Your task to perform on an android device: turn notification dots on Image 0: 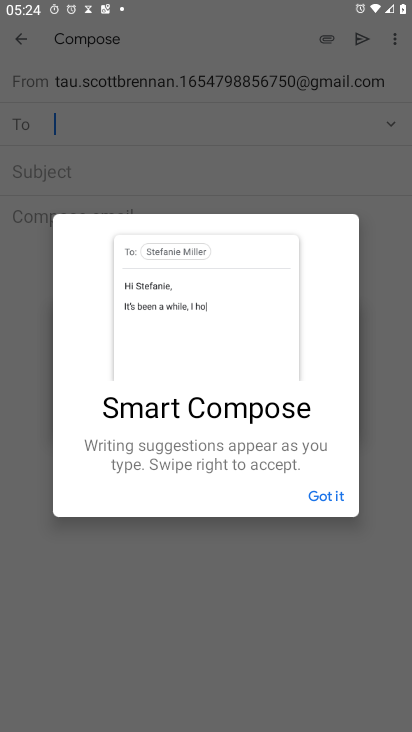
Step 0: press home button
Your task to perform on an android device: turn notification dots on Image 1: 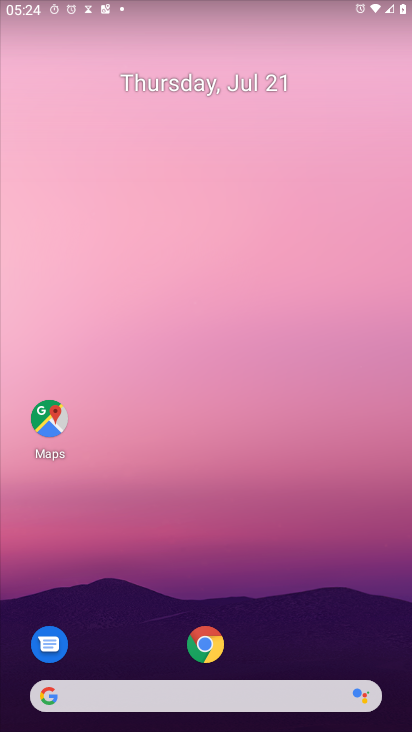
Step 1: drag from (251, 557) to (154, 22)
Your task to perform on an android device: turn notification dots on Image 2: 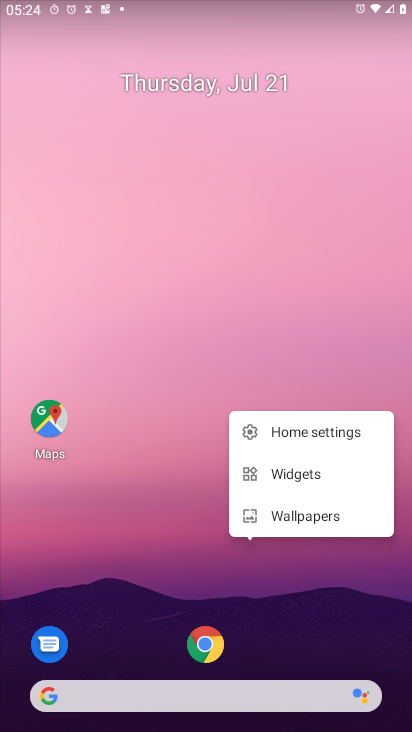
Step 2: drag from (142, 528) to (404, 318)
Your task to perform on an android device: turn notification dots on Image 3: 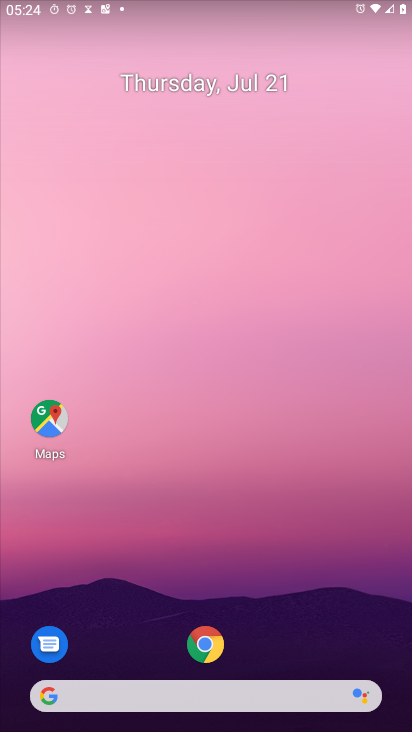
Step 3: drag from (248, 594) to (142, 39)
Your task to perform on an android device: turn notification dots on Image 4: 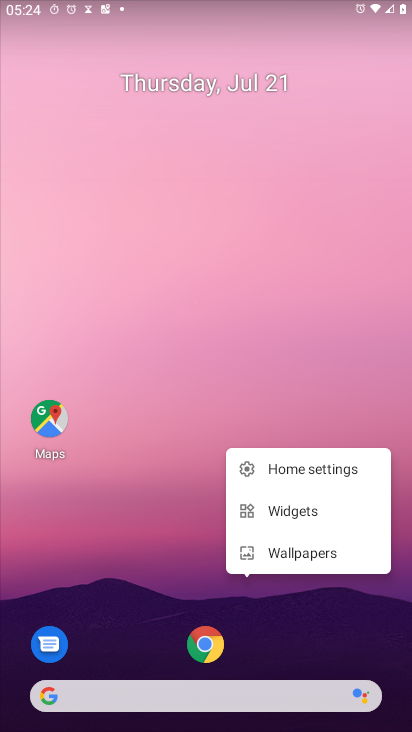
Step 4: drag from (166, 594) to (173, 17)
Your task to perform on an android device: turn notification dots on Image 5: 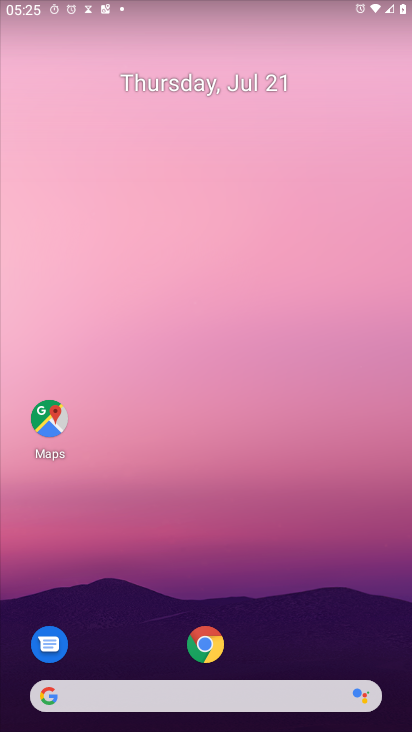
Step 5: drag from (269, 546) to (286, 46)
Your task to perform on an android device: turn notification dots on Image 6: 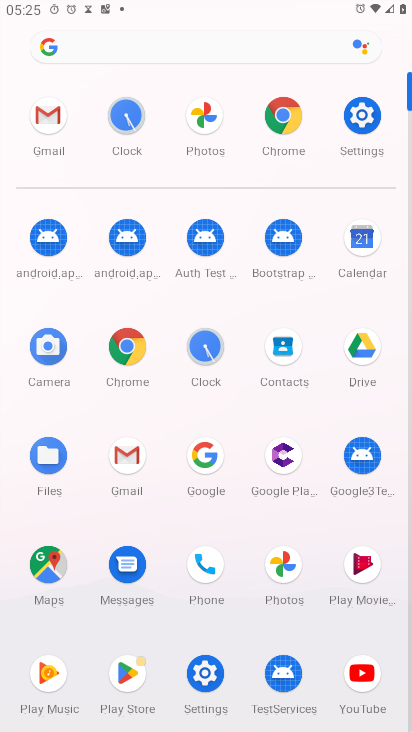
Step 6: click (368, 113)
Your task to perform on an android device: turn notification dots on Image 7: 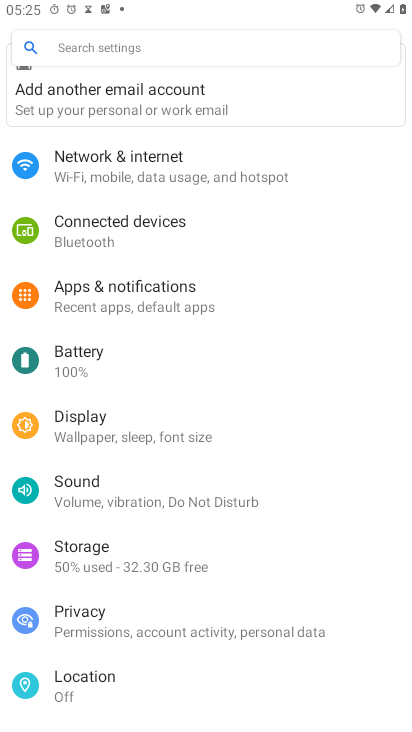
Step 7: click (135, 286)
Your task to perform on an android device: turn notification dots on Image 8: 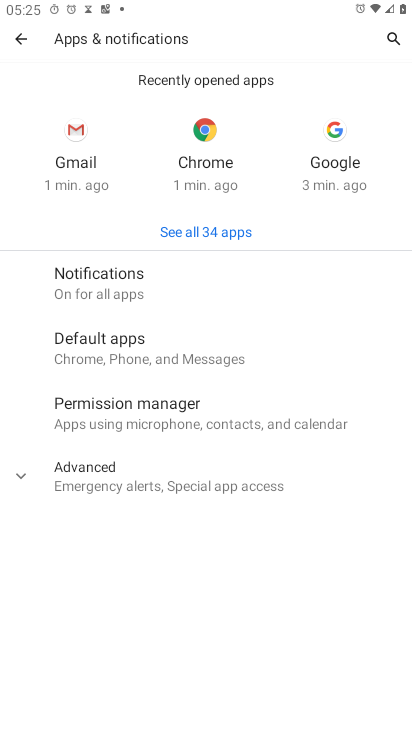
Step 8: click (97, 291)
Your task to perform on an android device: turn notification dots on Image 9: 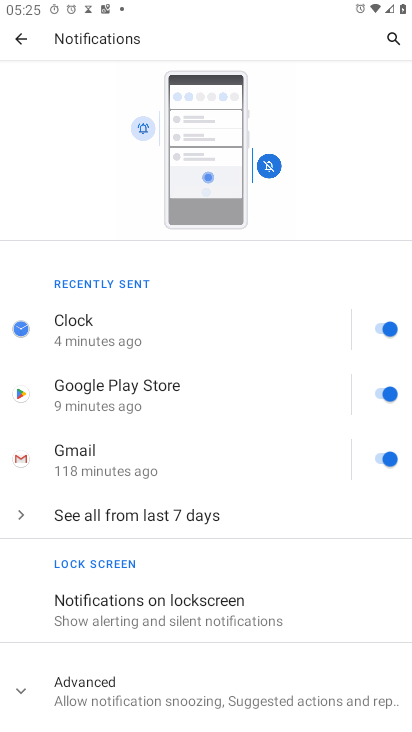
Step 9: task complete